Your task to perform on an android device: Open Chrome and go to the settings page Image 0: 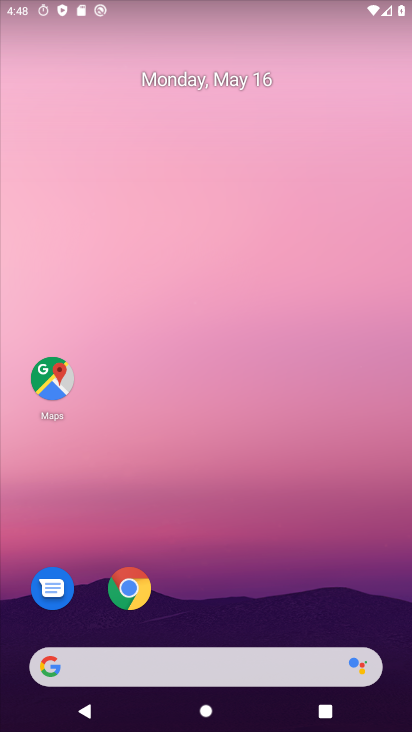
Step 0: drag from (245, 638) to (247, 341)
Your task to perform on an android device: Open Chrome and go to the settings page Image 1: 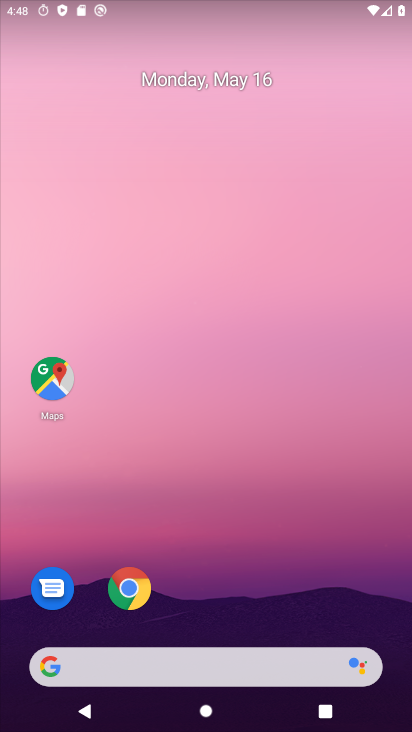
Step 1: drag from (188, 424) to (185, 259)
Your task to perform on an android device: Open Chrome and go to the settings page Image 2: 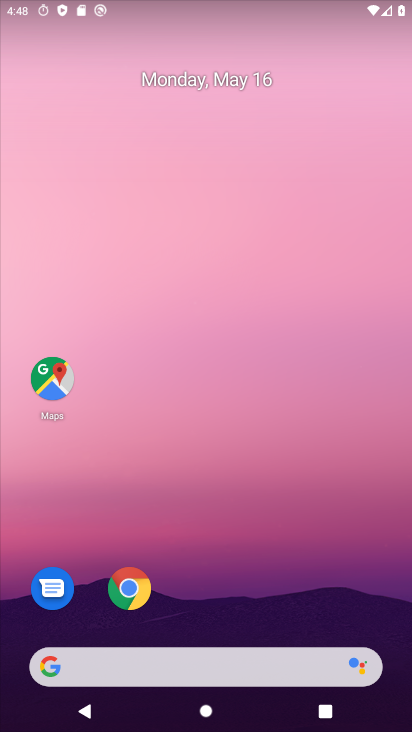
Step 2: drag from (224, 633) to (189, 186)
Your task to perform on an android device: Open Chrome and go to the settings page Image 3: 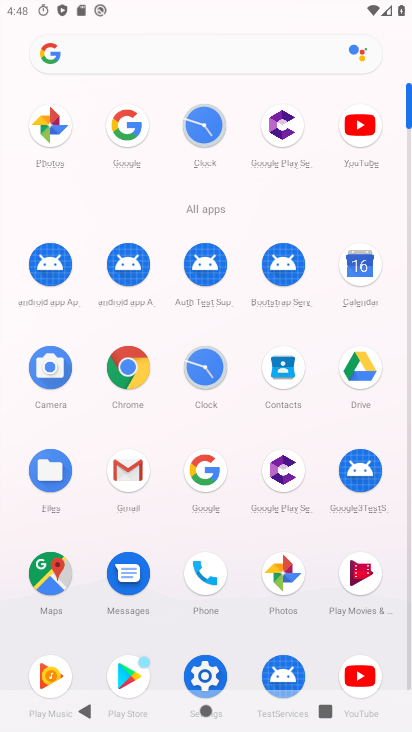
Step 3: click (133, 379)
Your task to perform on an android device: Open Chrome and go to the settings page Image 4: 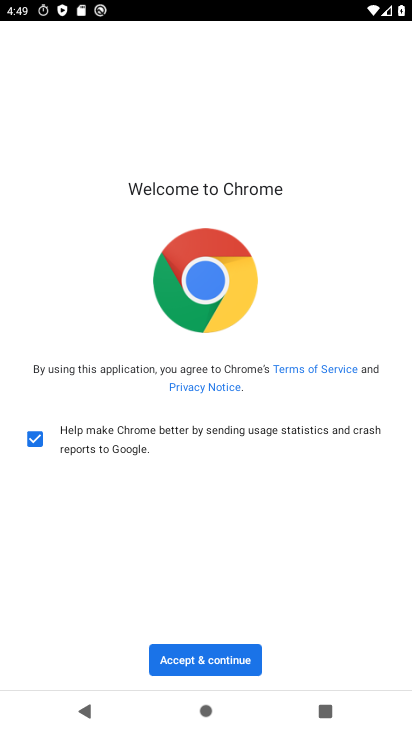
Step 4: click (241, 664)
Your task to perform on an android device: Open Chrome and go to the settings page Image 5: 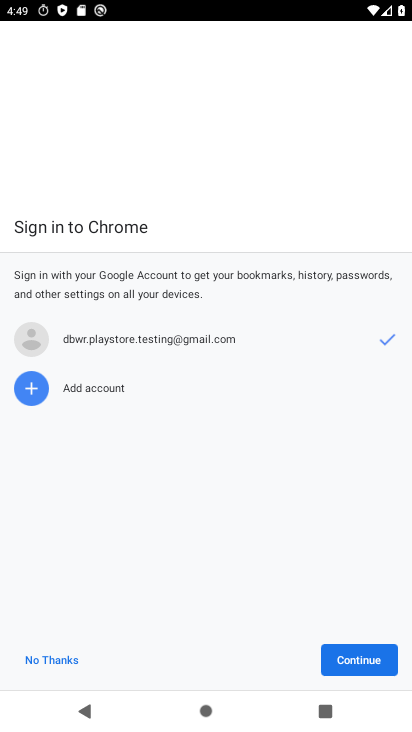
Step 5: click (340, 658)
Your task to perform on an android device: Open Chrome and go to the settings page Image 6: 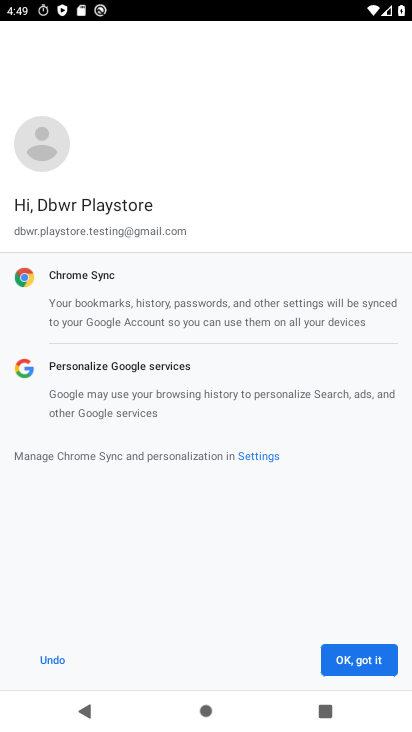
Step 6: click (340, 658)
Your task to perform on an android device: Open Chrome and go to the settings page Image 7: 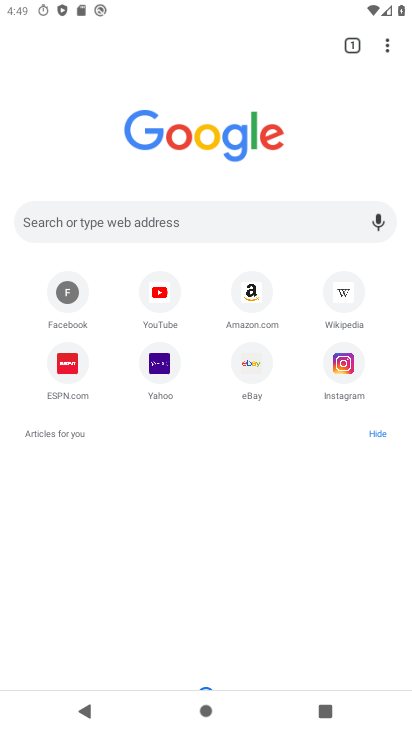
Step 7: click (391, 46)
Your task to perform on an android device: Open Chrome and go to the settings page Image 8: 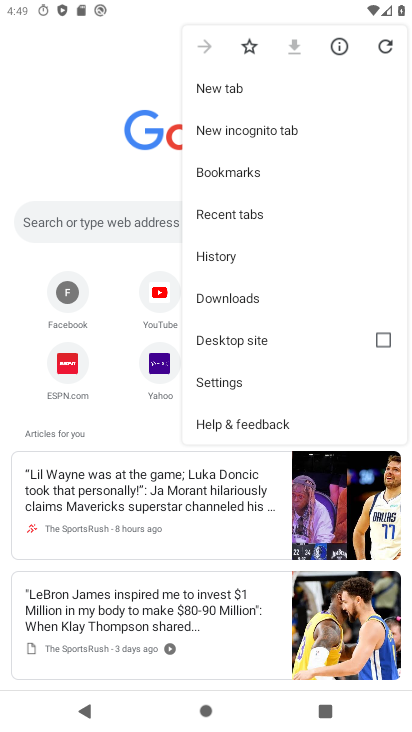
Step 8: click (300, 384)
Your task to perform on an android device: Open Chrome and go to the settings page Image 9: 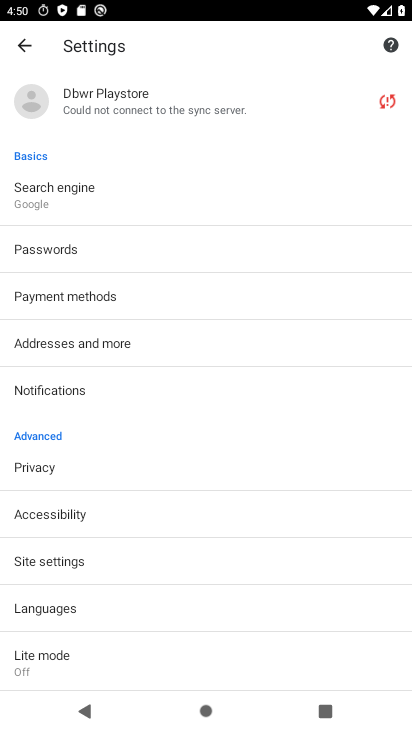
Step 9: task complete